Your task to perform on an android device: toggle wifi Image 0: 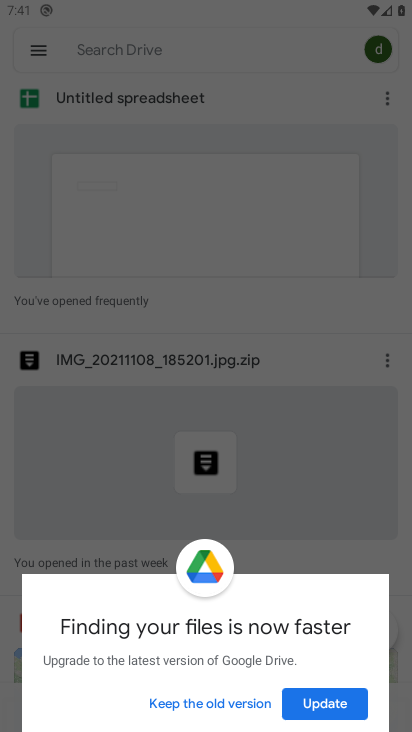
Step 0: press home button
Your task to perform on an android device: toggle wifi Image 1: 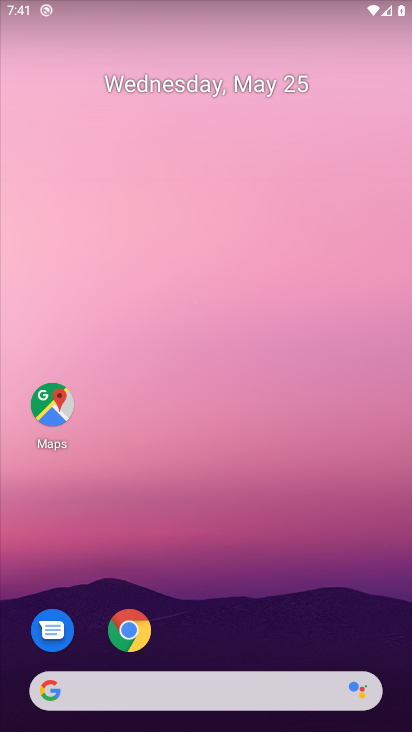
Step 1: drag from (209, 677) to (278, 295)
Your task to perform on an android device: toggle wifi Image 2: 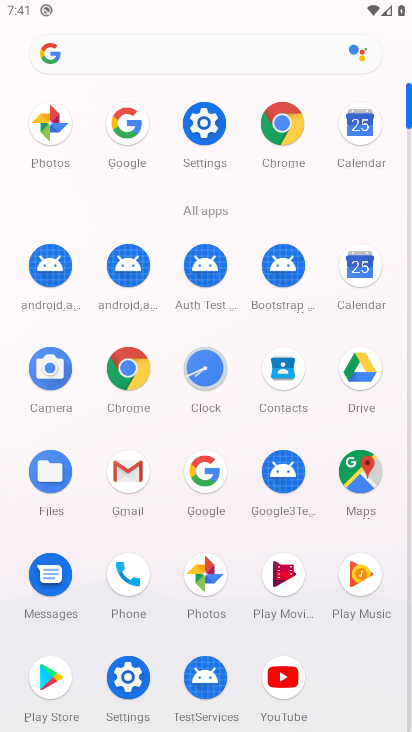
Step 2: click (207, 117)
Your task to perform on an android device: toggle wifi Image 3: 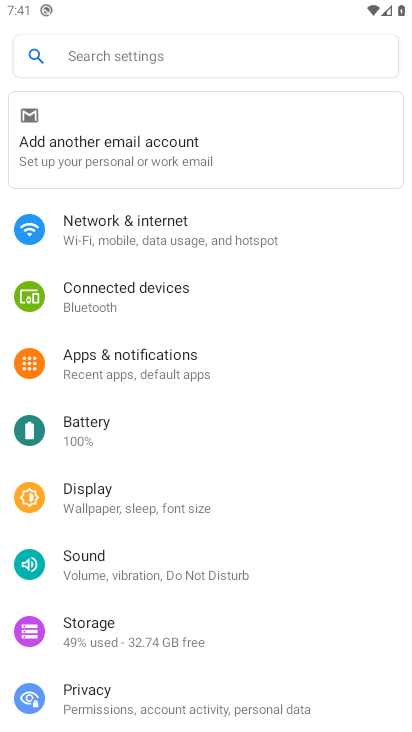
Step 3: click (141, 233)
Your task to perform on an android device: toggle wifi Image 4: 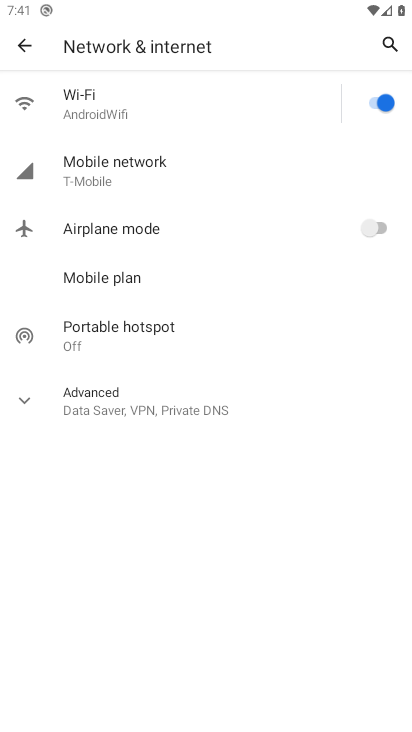
Step 4: click (374, 102)
Your task to perform on an android device: toggle wifi Image 5: 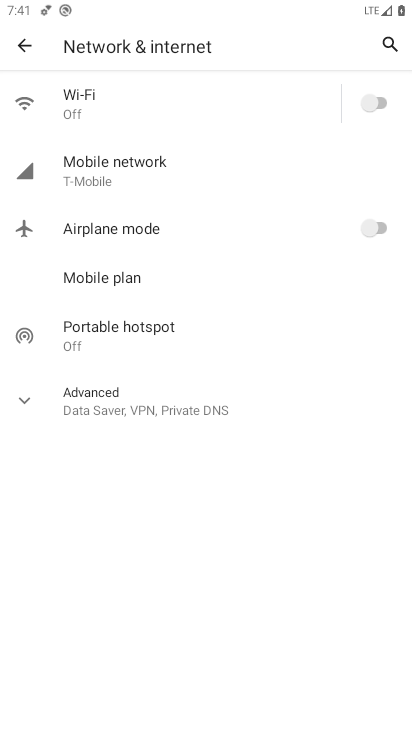
Step 5: task complete